Your task to perform on an android device: stop showing notifications on the lock screen Image 0: 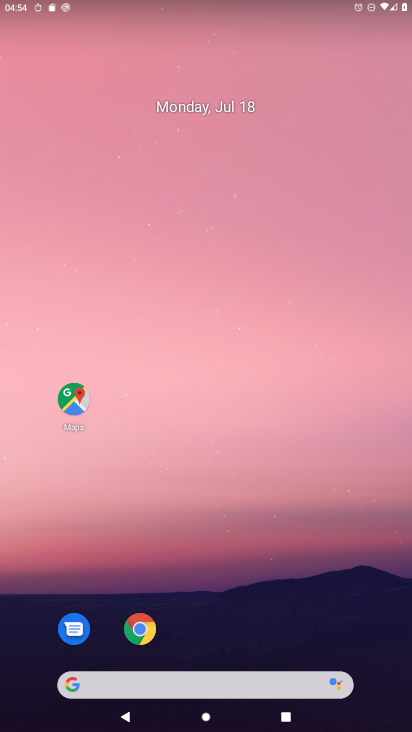
Step 0: drag from (213, 673) to (302, 171)
Your task to perform on an android device: stop showing notifications on the lock screen Image 1: 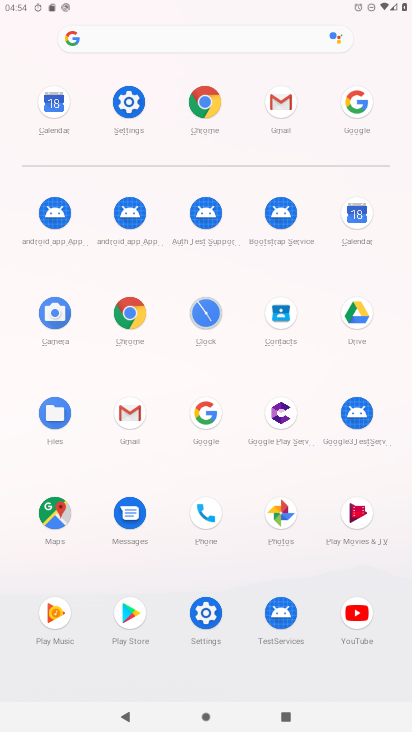
Step 1: click (129, 100)
Your task to perform on an android device: stop showing notifications on the lock screen Image 2: 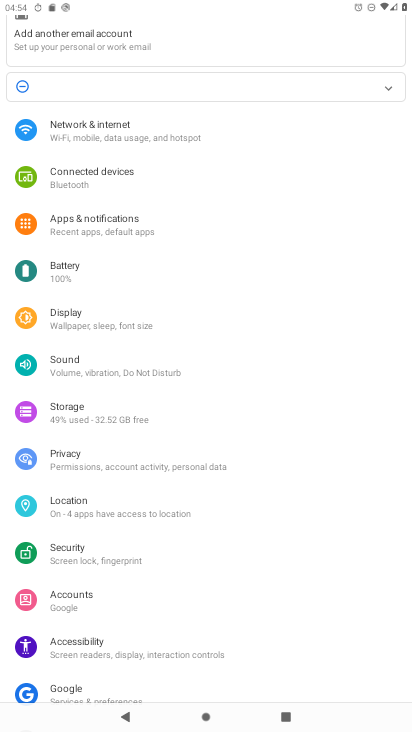
Step 2: click (103, 221)
Your task to perform on an android device: stop showing notifications on the lock screen Image 3: 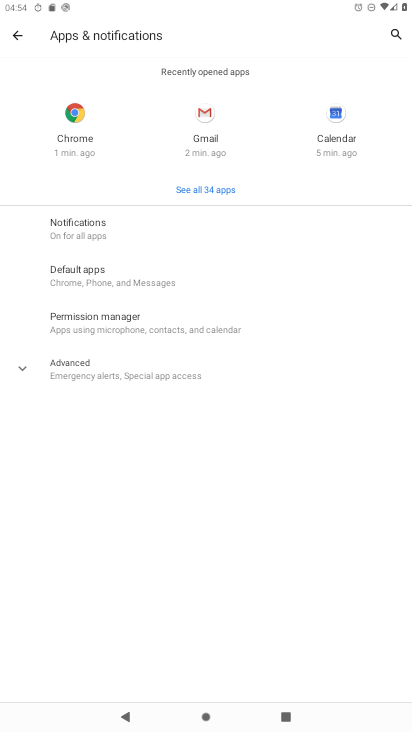
Step 3: click (96, 234)
Your task to perform on an android device: stop showing notifications on the lock screen Image 4: 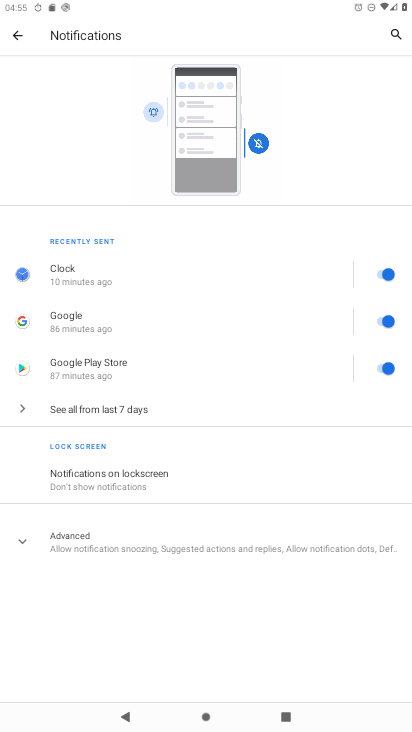
Step 4: click (68, 474)
Your task to perform on an android device: stop showing notifications on the lock screen Image 5: 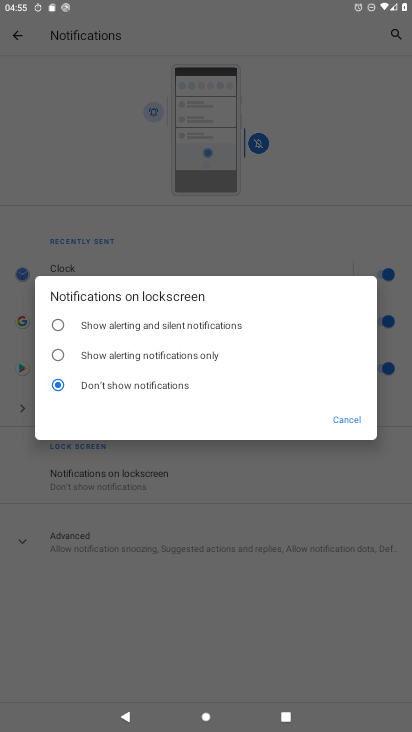
Step 5: click (59, 382)
Your task to perform on an android device: stop showing notifications on the lock screen Image 6: 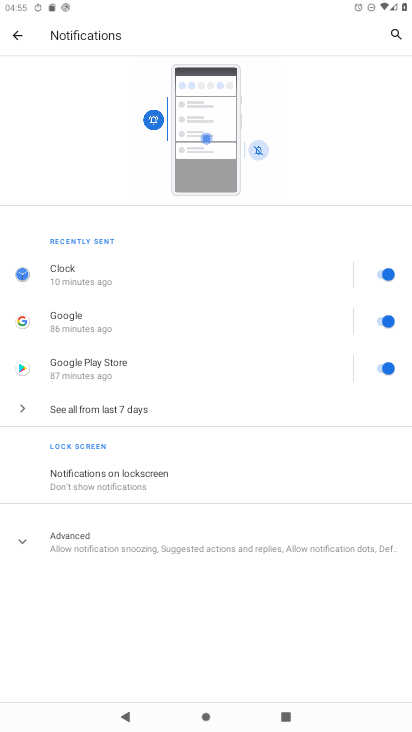
Step 6: task complete